Your task to perform on an android device: Go to network settings Image 0: 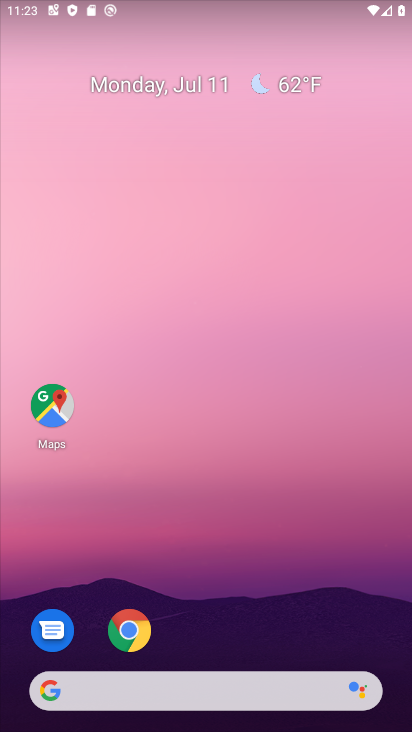
Step 0: drag from (320, 685) to (173, 8)
Your task to perform on an android device: Go to network settings Image 1: 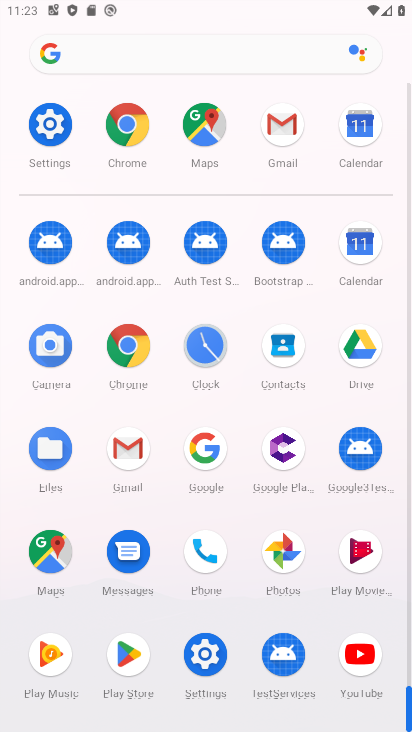
Step 1: click (56, 124)
Your task to perform on an android device: Go to network settings Image 2: 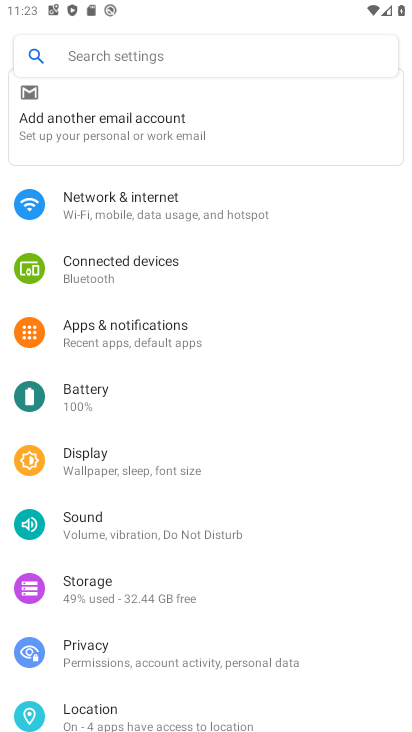
Step 2: click (84, 208)
Your task to perform on an android device: Go to network settings Image 3: 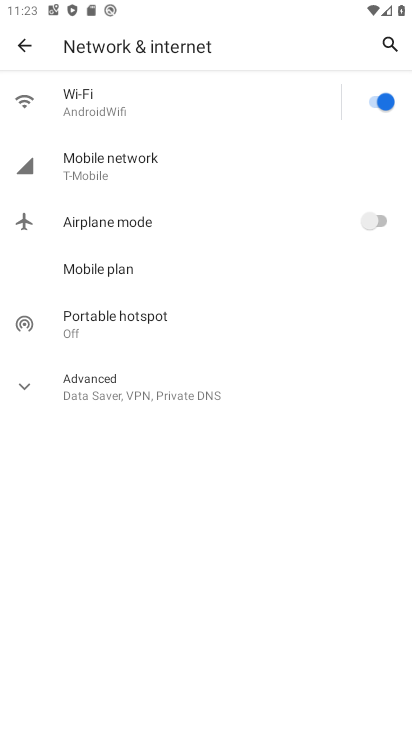
Step 3: click (125, 164)
Your task to perform on an android device: Go to network settings Image 4: 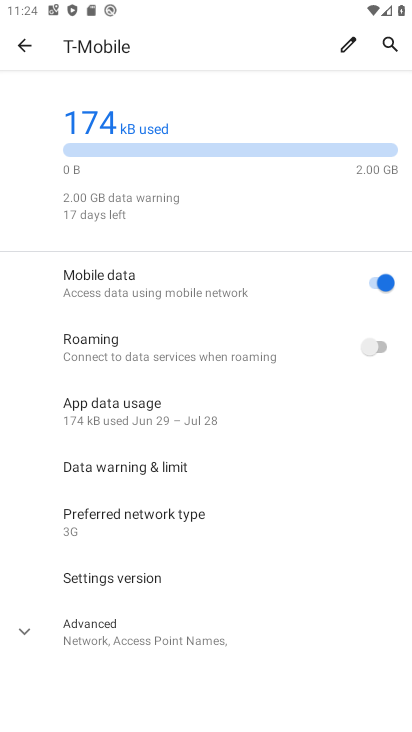
Step 4: task complete